Your task to perform on an android device: check the backup settings in the google photos Image 0: 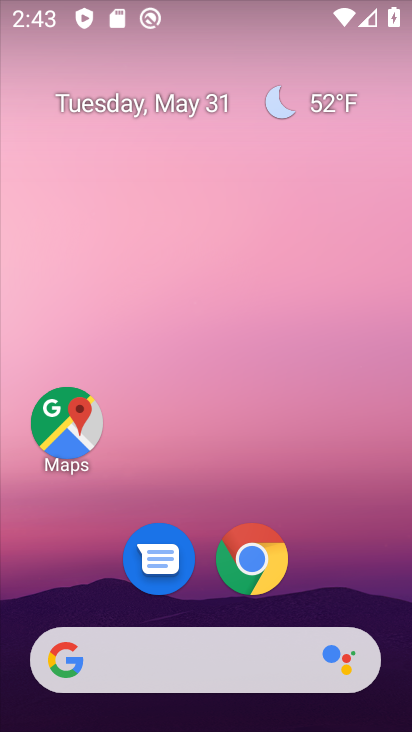
Step 0: drag from (209, 605) to (190, 163)
Your task to perform on an android device: check the backup settings in the google photos Image 1: 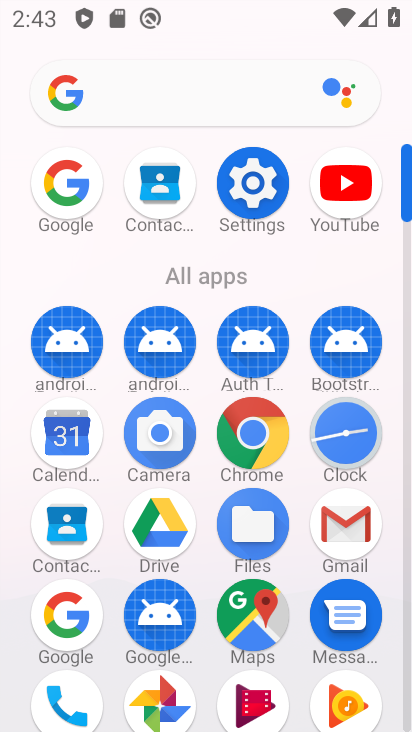
Step 1: drag from (208, 582) to (214, 244)
Your task to perform on an android device: check the backup settings in the google photos Image 2: 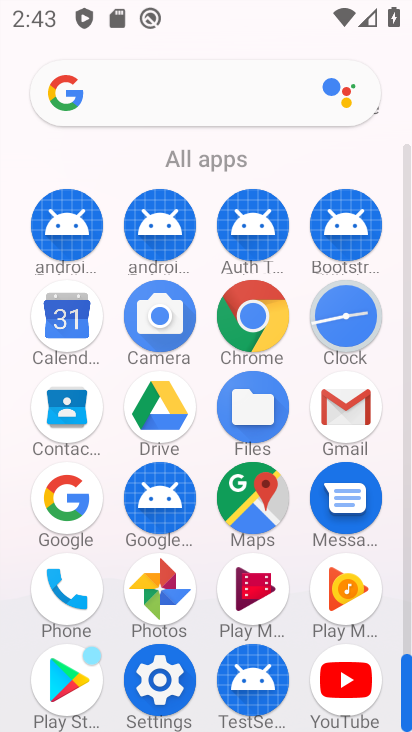
Step 2: click (144, 572)
Your task to perform on an android device: check the backup settings in the google photos Image 3: 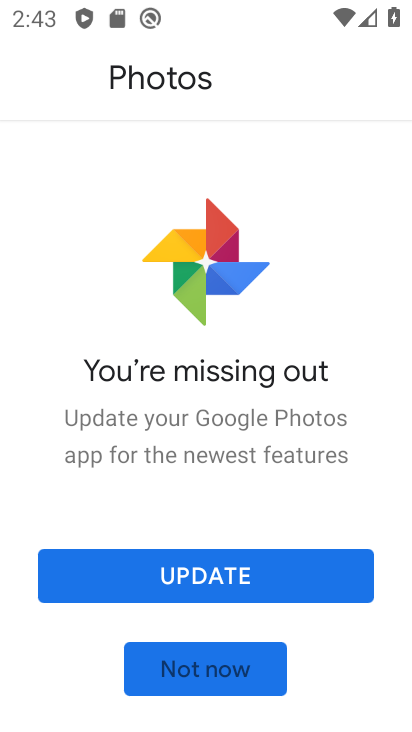
Step 3: click (186, 651)
Your task to perform on an android device: check the backup settings in the google photos Image 4: 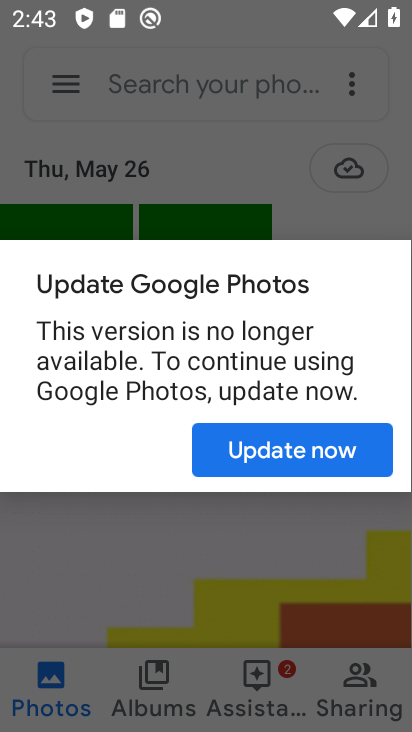
Step 4: click (281, 452)
Your task to perform on an android device: check the backup settings in the google photos Image 5: 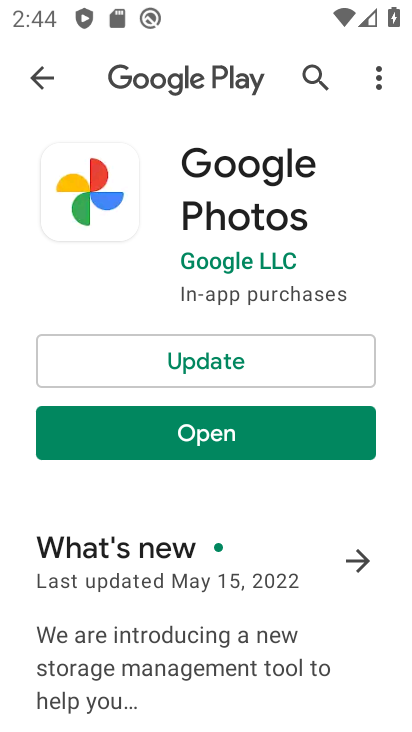
Step 5: click (281, 452)
Your task to perform on an android device: check the backup settings in the google photos Image 6: 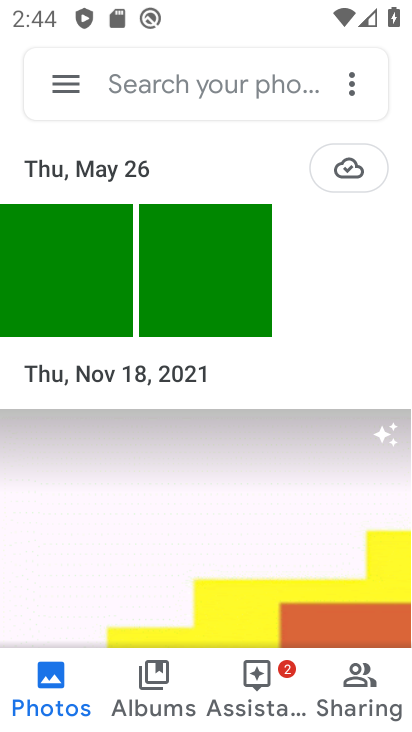
Step 6: click (69, 85)
Your task to perform on an android device: check the backup settings in the google photos Image 7: 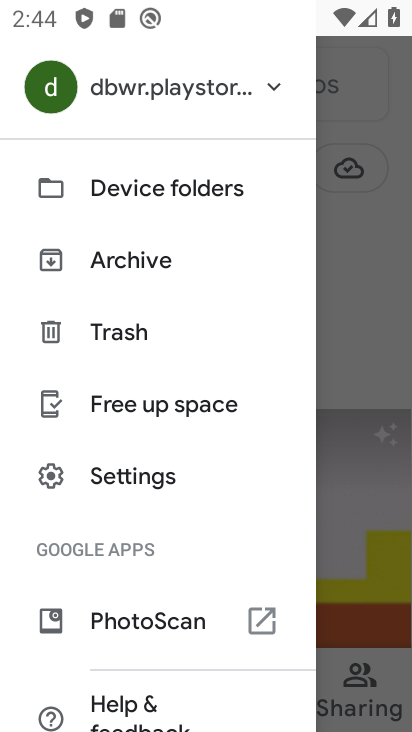
Step 7: drag from (141, 637) to (145, 383)
Your task to perform on an android device: check the backup settings in the google photos Image 8: 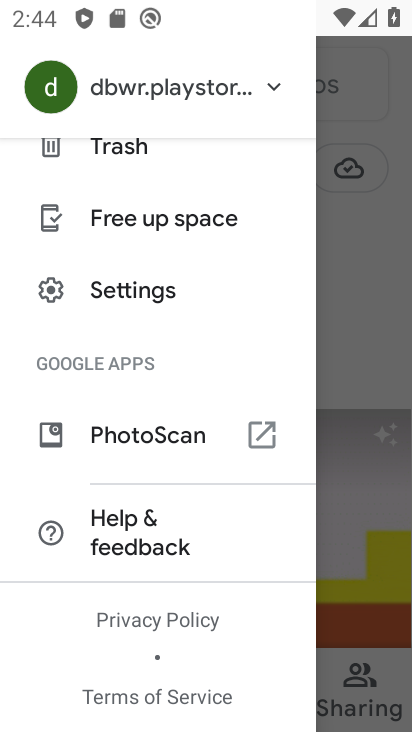
Step 8: click (130, 281)
Your task to perform on an android device: check the backup settings in the google photos Image 9: 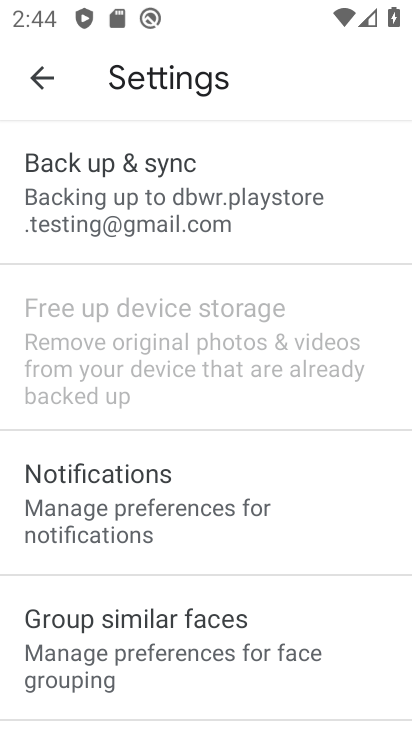
Step 9: click (68, 198)
Your task to perform on an android device: check the backup settings in the google photos Image 10: 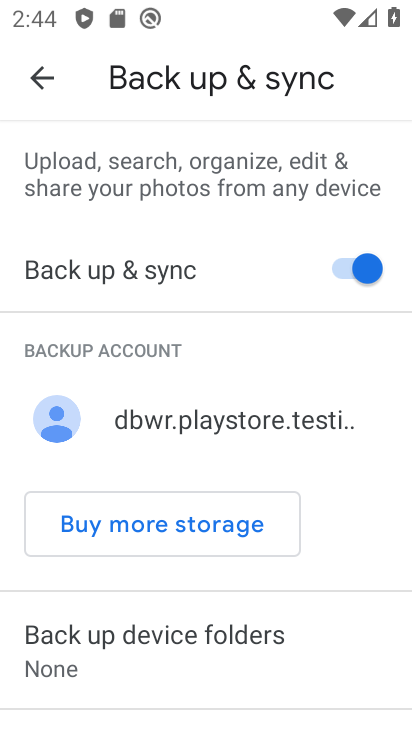
Step 10: click (212, 166)
Your task to perform on an android device: check the backup settings in the google photos Image 11: 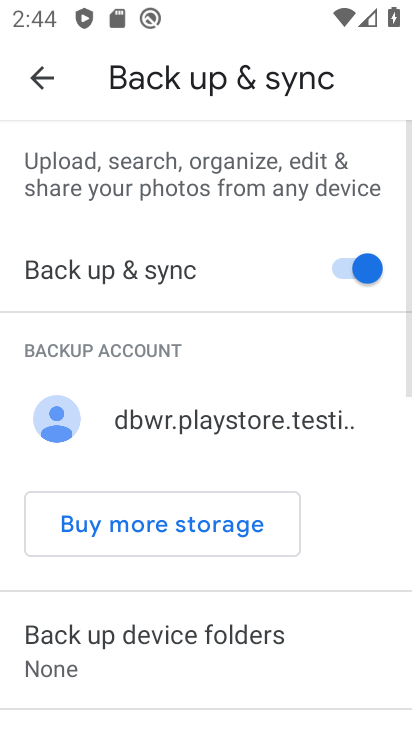
Step 11: task complete